Your task to perform on an android device: change notifications settings Image 0: 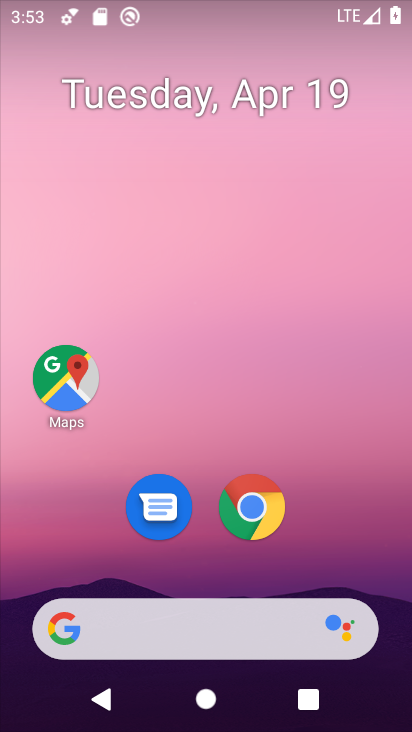
Step 0: drag from (328, 555) to (398, 56)
Your task to perform on an android device: change notifications settings Image 1: 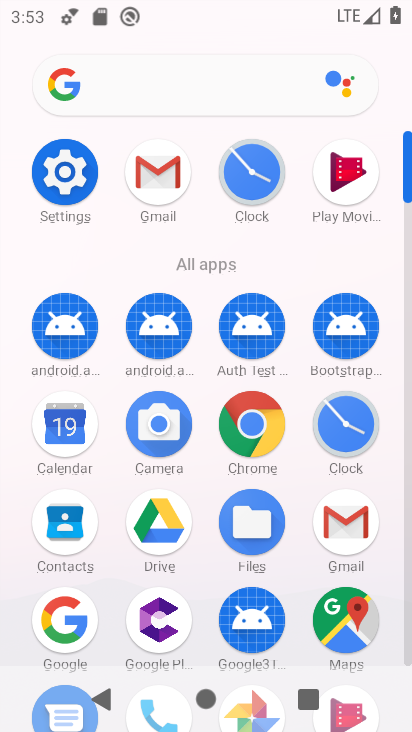
Step 1: click (70, 167)
Your task to perform on an android device: change notifications settings Image 2: 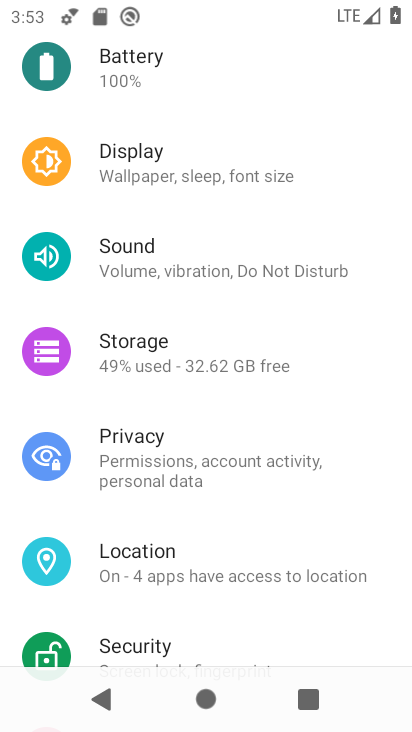
Step 2: drag from (160, 374) to (199, 471)
Your task to perform on an android device: change notifications settings Image 3: 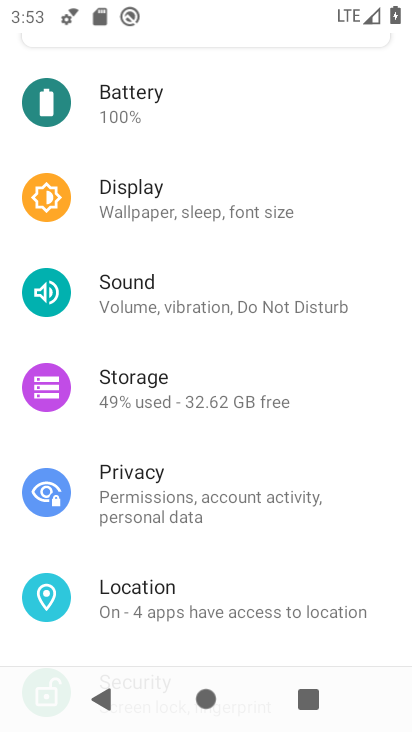
Step 3: drag from (209, 233) to (233, 319)
Your task to perform on an android device: change notifications settings Image 4: 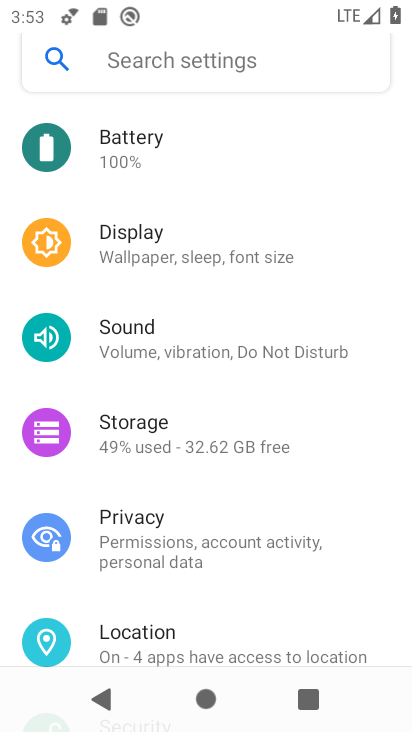
Step 4: drag from (221, 246) to (229, 333)
Your task to perform on an android device: change notifications settings Image 5: 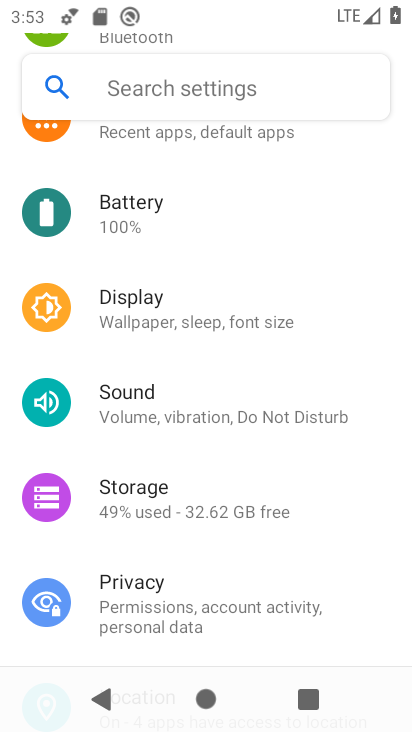
Step 5: drag from (216, 258) to (220, 326)
Your task to perform on an android device: change notifications settings Image 6: 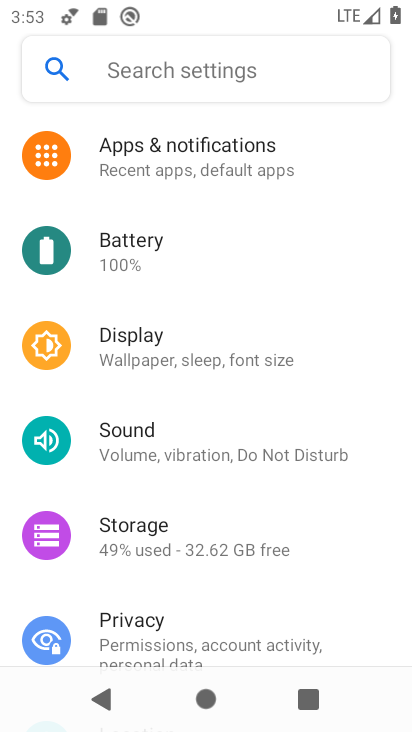
Step 6: click (204, 167)
Your task to perform on an android device: change notifications settings Image 7: 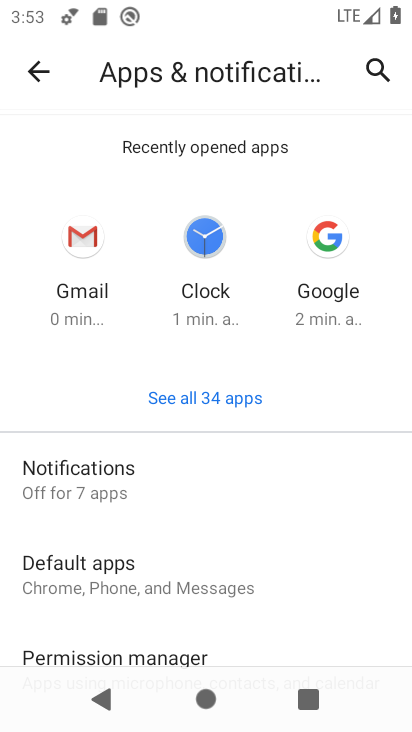
Step 7: click (86, 481)
Your task to perform on an android device: change notifications settings Image 8: 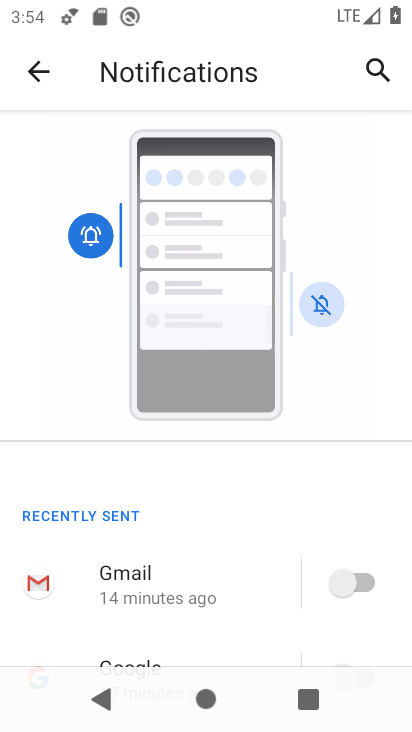
Step 8: drag from (117, 526) to (142, 241)
Your task to perform on an android device: change notifications settings Image 9: 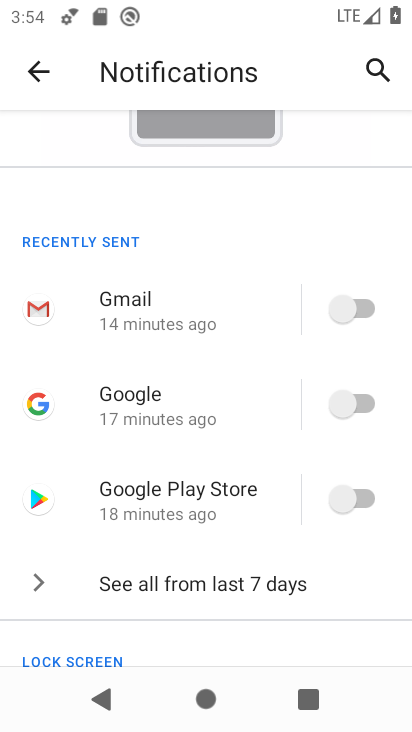
Step 9: drag from (110, 504) to (115, 365)
Your task to perform on an android device: change notifications settings Image 10: 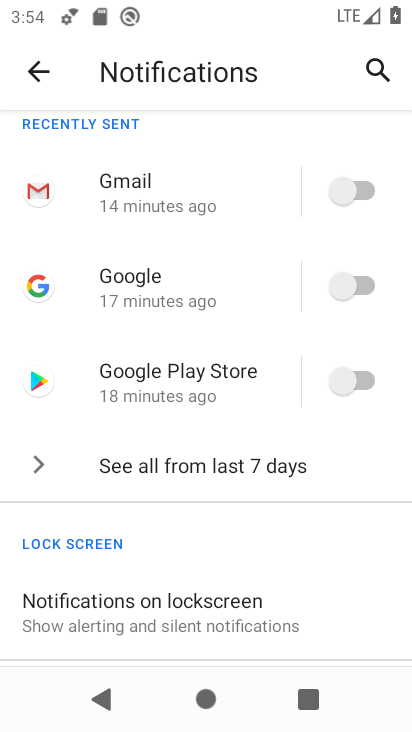
Step 10: click (125, 471)
Your task to perform on an android device: change notifications settings Image 11: 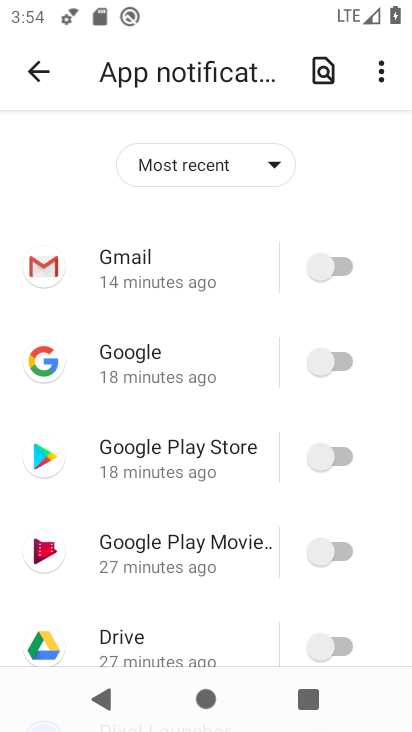
Step 11: click (300, 267)
Your task to perform on an android device: change notifications settings Image 12: 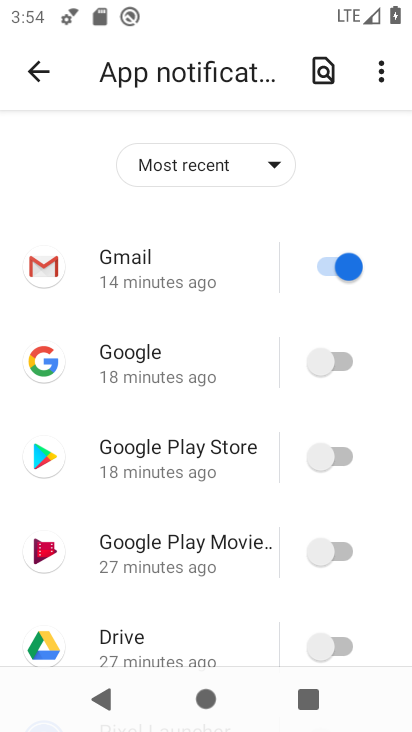
Step 12: click (325, 369)
Your task to perform on an android device: change notifications settings Image 13: 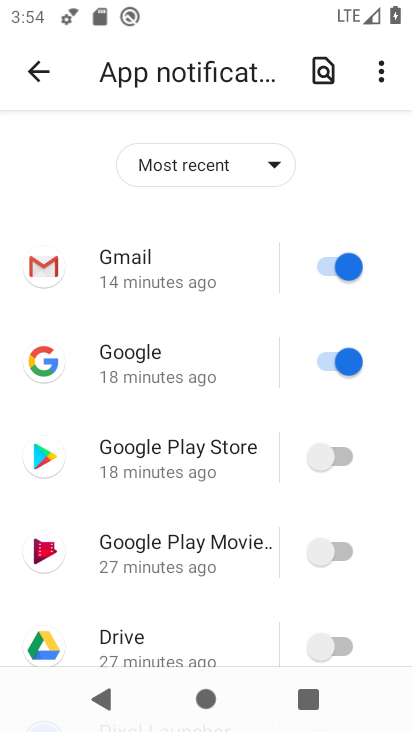
Step 13: click (331, 446)
Your task to perform on an android device: change notifications settings Image 14: 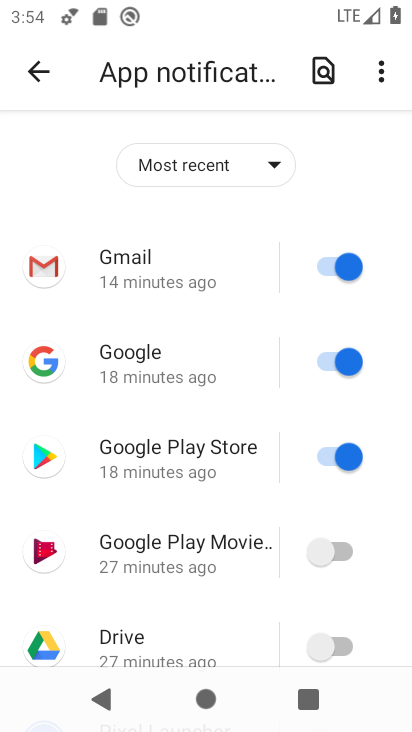
Step 14: click (339, 545)
Your task to perform on an android device: change notifications settings Image 15: 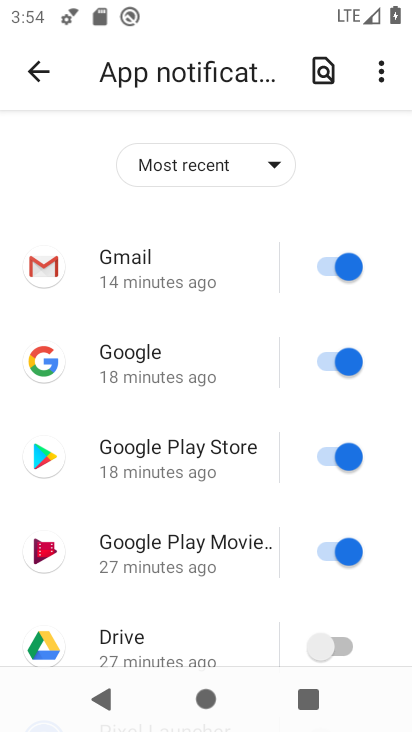
Step 15: click (341, 651)
Your task to perform on an android device: change notifications settings Image 16: 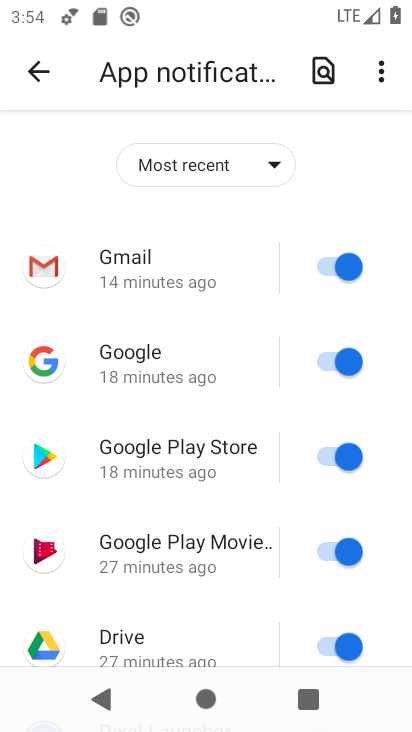
Step 16: drag from (215, 588) to (267, 181)
Your task to perform on an android device: change notifications settings Image 17: 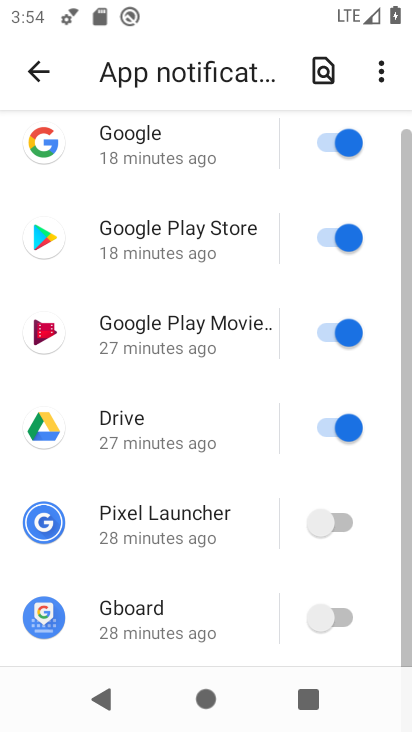
Step 17: click (342, 531)
Your task to perform on an android device: change notifications settings Image 18: 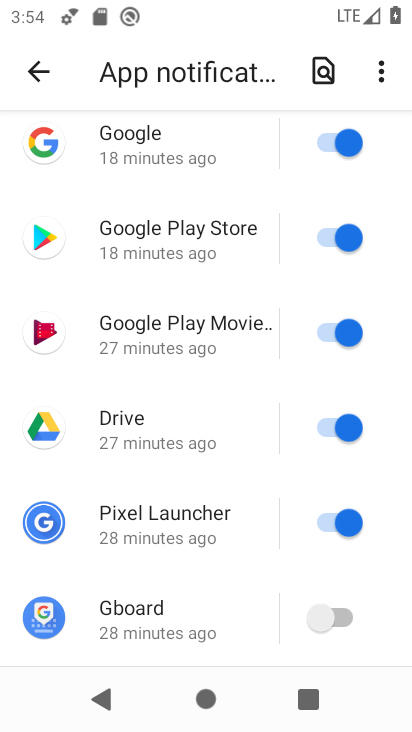
Step 18: click (325, 614)
Your task to perform on an android device: change notifications settings Image 19: 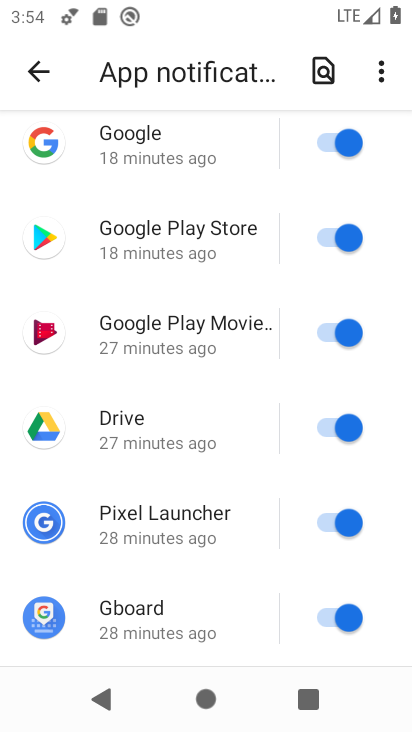
Step 19: drag from (178, 589) to (136, 276)
Your task to perform on an android device: change notifications settings Image 20: 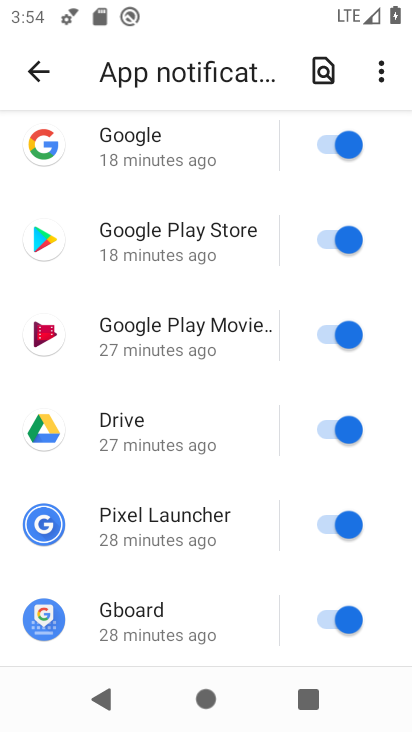
Step 20: click (29, 66)
Your task to perform on an android device: change notifications settings Image 21: 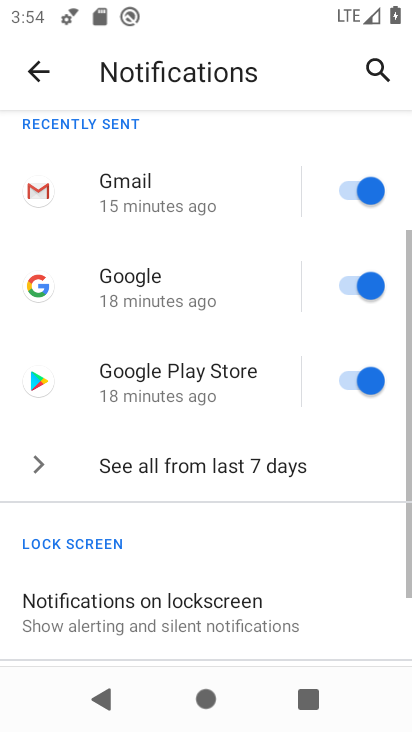
Step 21: drag from (217, 505) to (223, 255)
Your task to perform on an android device: change notifications settings Image 22: 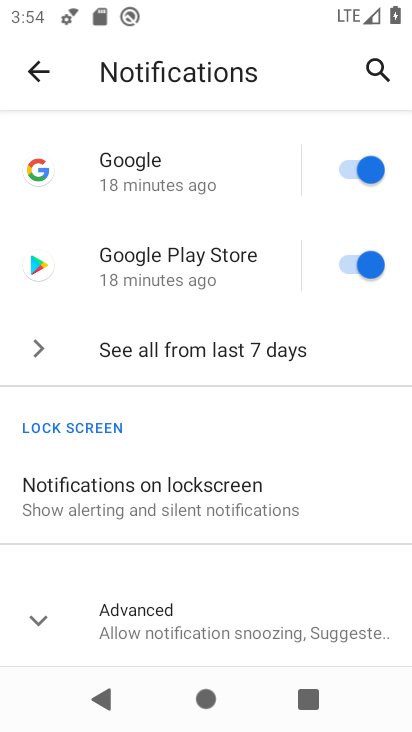
Step 22: click (234, 502)
Your task to perform on an android device: change notifications settings Image 23: 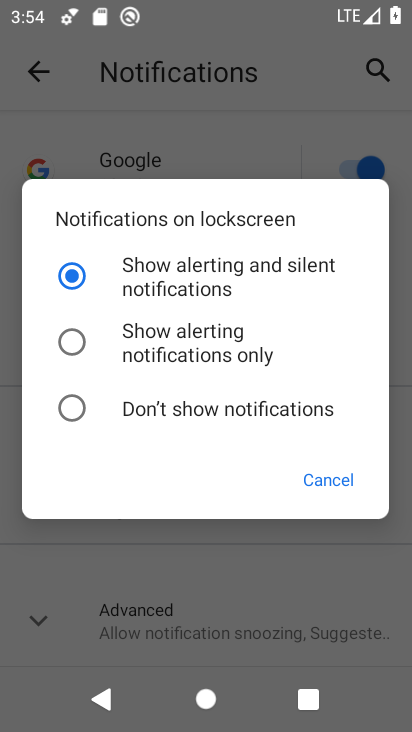
Step 23: click (208, 337)
Your task to perform on an android device: change notifications settings Image 24: 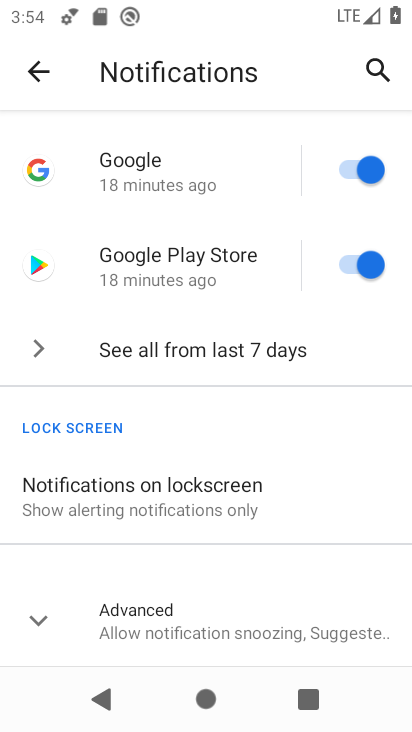
Step 24: drag from (243, 545) to (237, 372)
Your task to perform on an android device: change notifications settings Image 25: 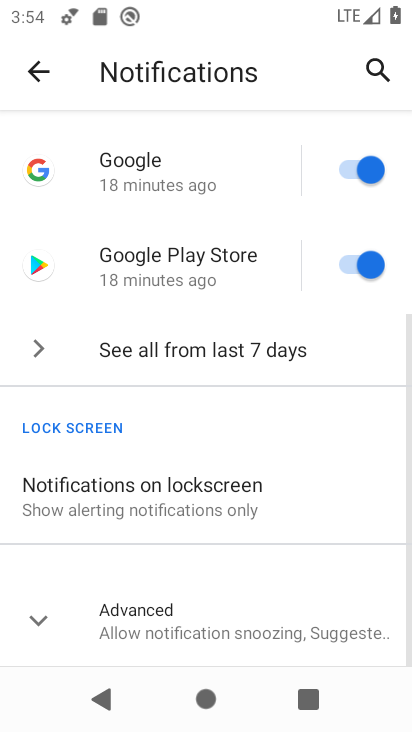
Step 25: click (225, 610)
Your task to perform on an android device: change notifications settings Image 26: 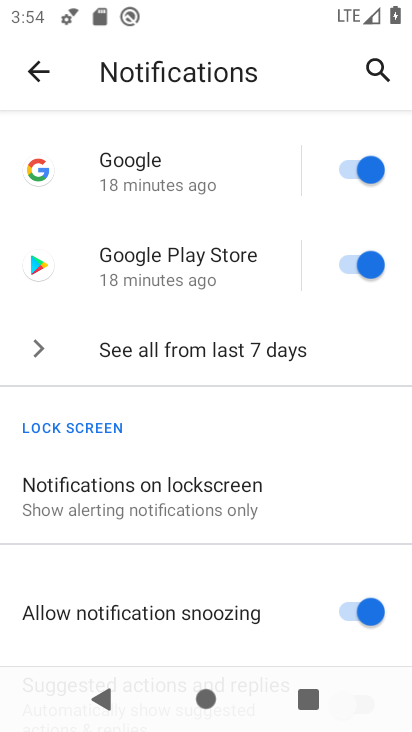
Step 26: drag from (231, 606) to (216, 296)
Your task to perform on an android device: change notifications settings Image 27: 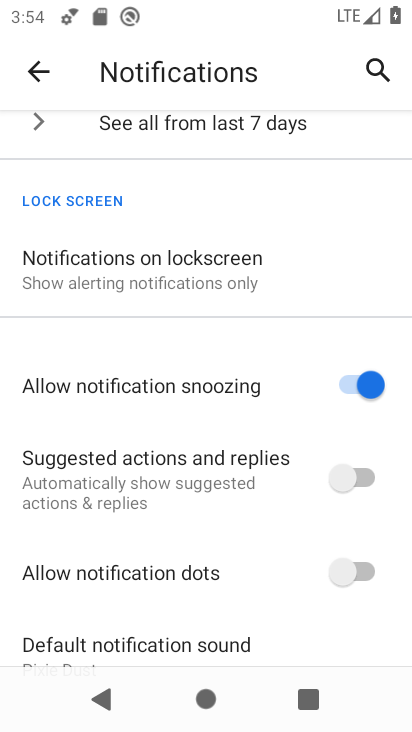
Step 27: click (362, 372)
Your task to perform on an android device: change notifications settings Image 28: 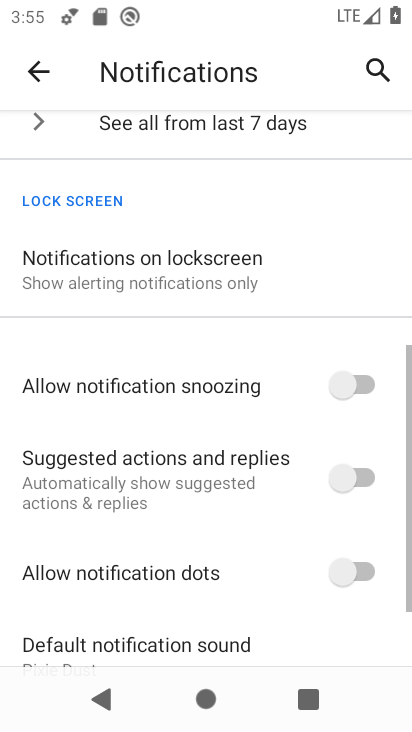
Step 28: click (331, 483)
Your task to perform on an android device: change notifications settings Image 29: 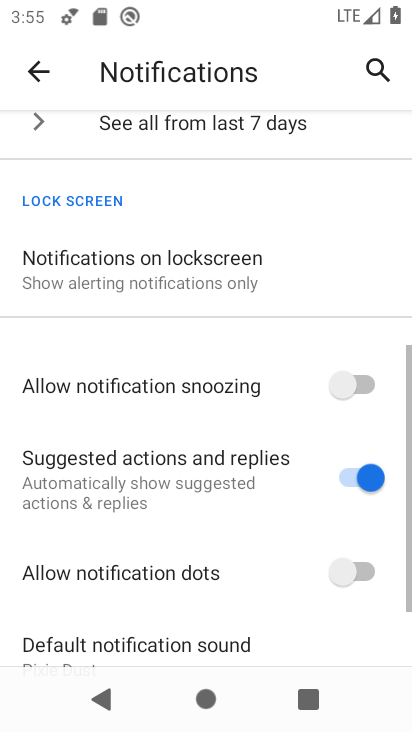
Step 29: click (356, 575)
Your task to perform on an android device: change notifications settings Image 30: 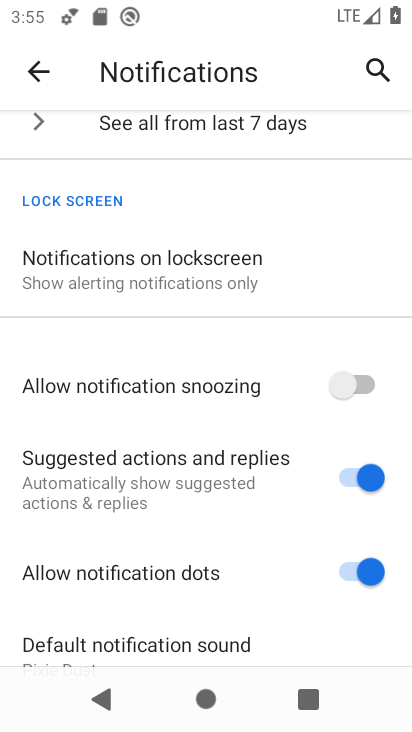
Step 30: task complete